Your task to perform on an android device: set default search engine in the chrome app Image 0: 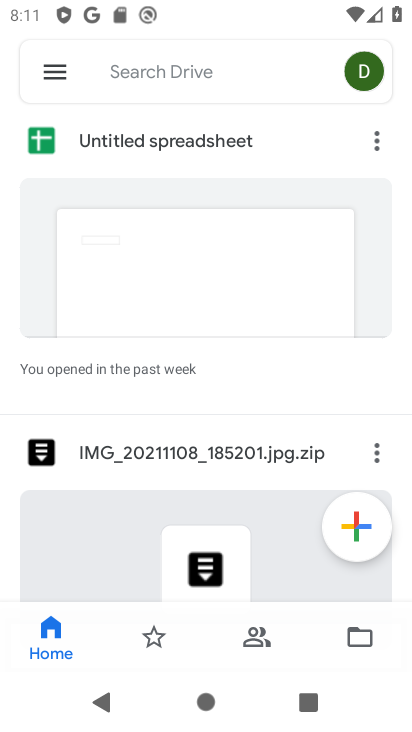
Step 0: press home button
Your task to perform on an android device: set default search engine in the chrome app Image 1: 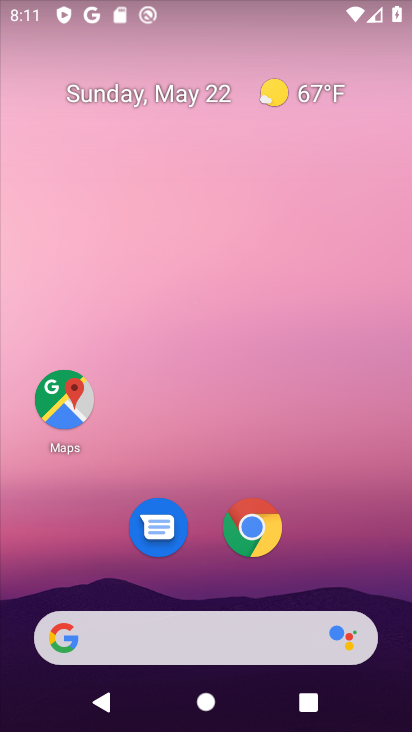
Step 1: click (249, 519)
Your task to perform on an android device: set default search engine in the chrome app Image 2: 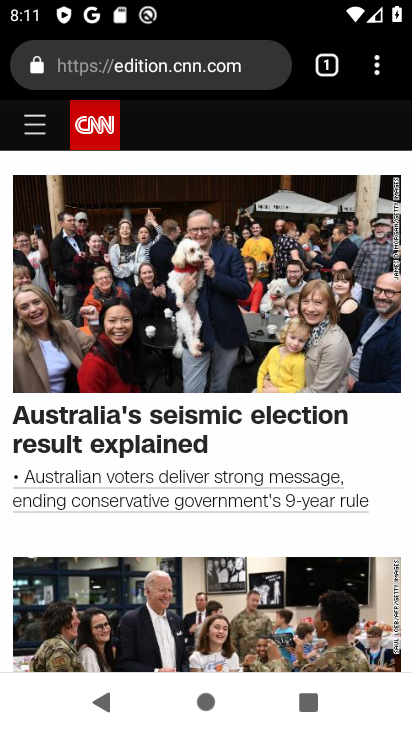
Step 2: click (377, 60)
Your task to perform on an android device: set default search engine in the chrome app Image 3: 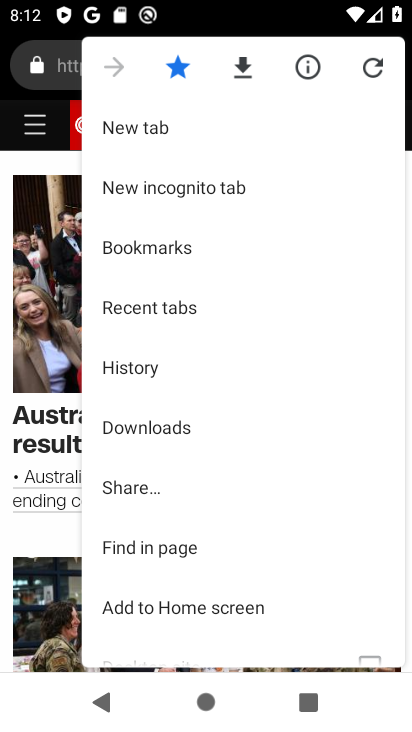
Step 3: drag from (230, 579) to (269, 76)
Your task to perform on an android device: set default search engine in the chrome app Image 4: 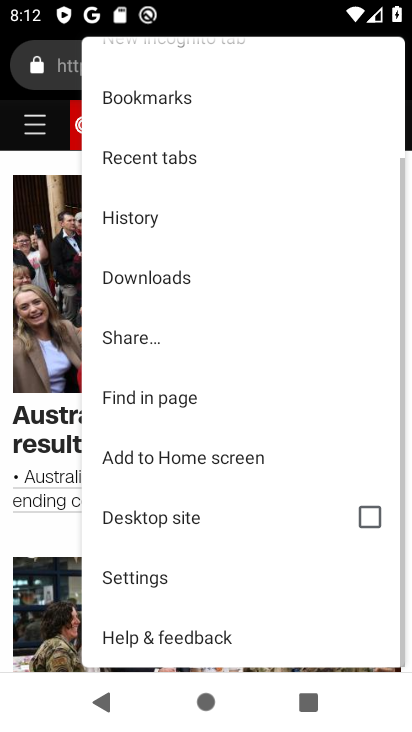
Step 4: click (173, 578)
Your task to perform on an android device: set default search engine in the chrome app Image 5: 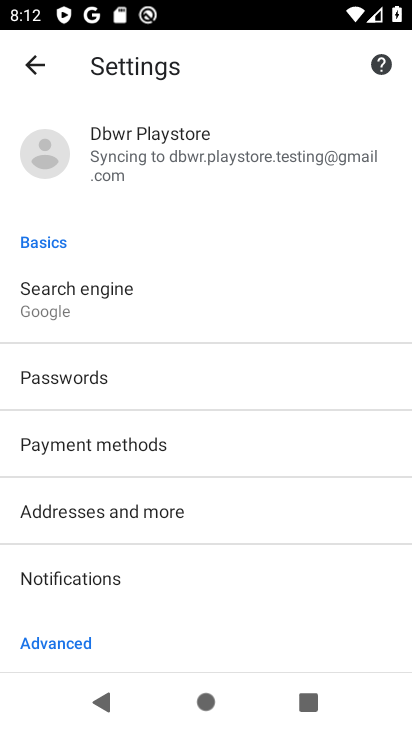
Step 5: click (86, 306)
Your task to perform on an android device: set default search engine in the chrome app Image 6: 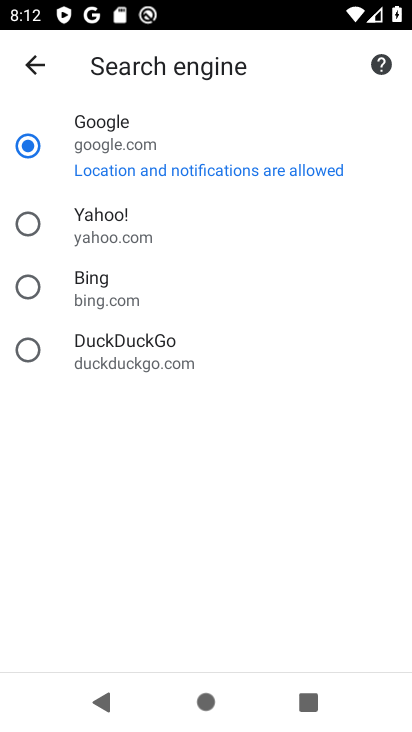
Step 6: click (25, 288)
Your task to perform on an android device: set default search engine in the chrome app Image 7: 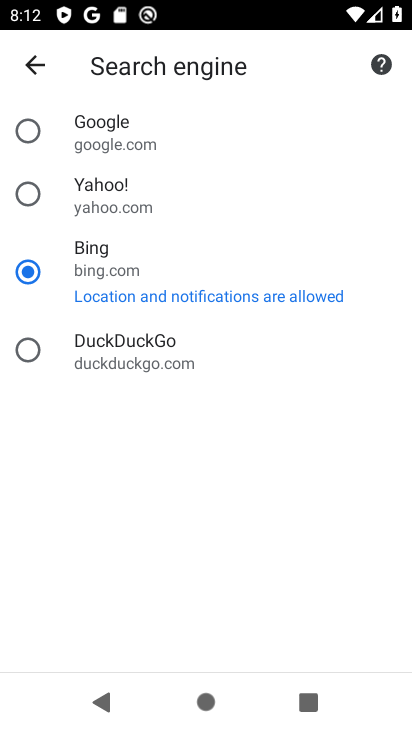
Step 7: task complete